Your task to perform on an android device: Search for jbl charge 4 on target.com, select the first entry, and add it to the cart. Image 0: 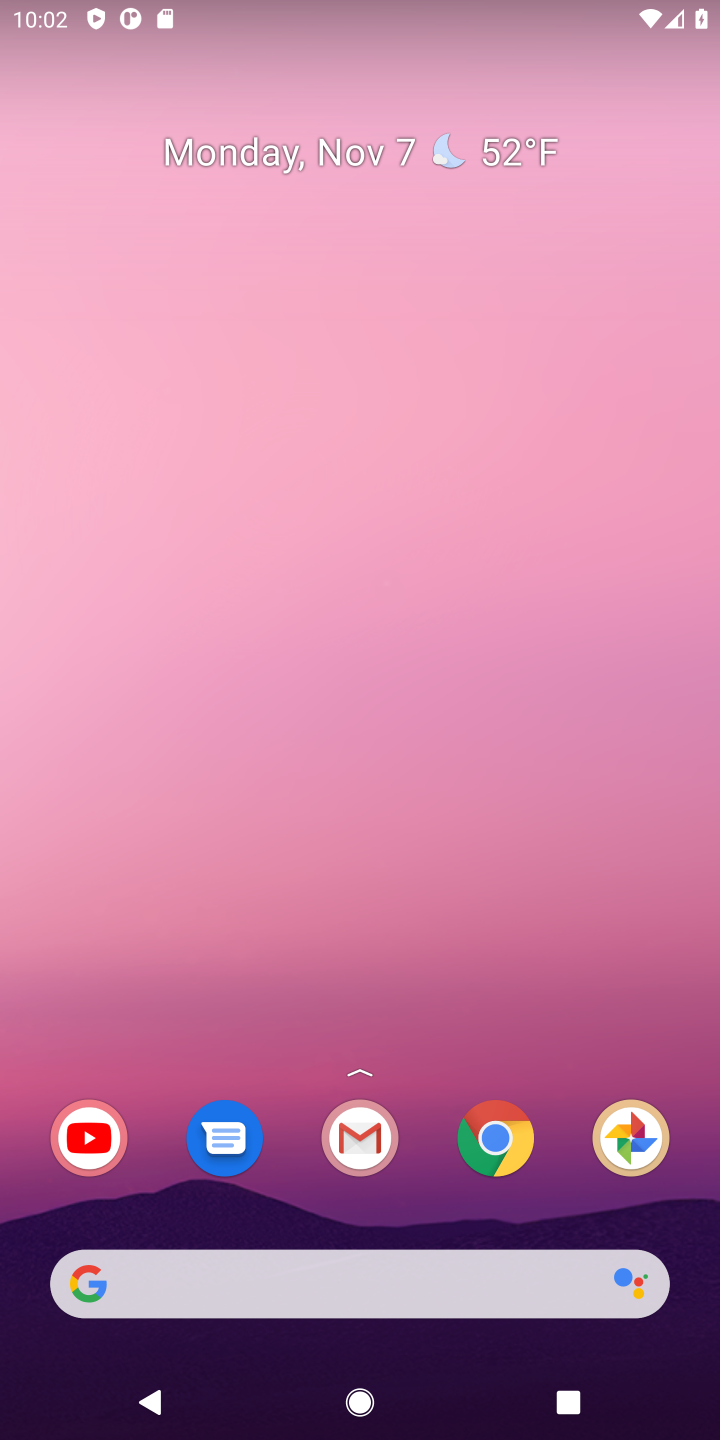
Step 0: drag from (363, 922) to (418, 221)
Your task to perform on an android device: Search for jbl charge 4 on target.com, select the first entry, and add it to the cart. Image 1: 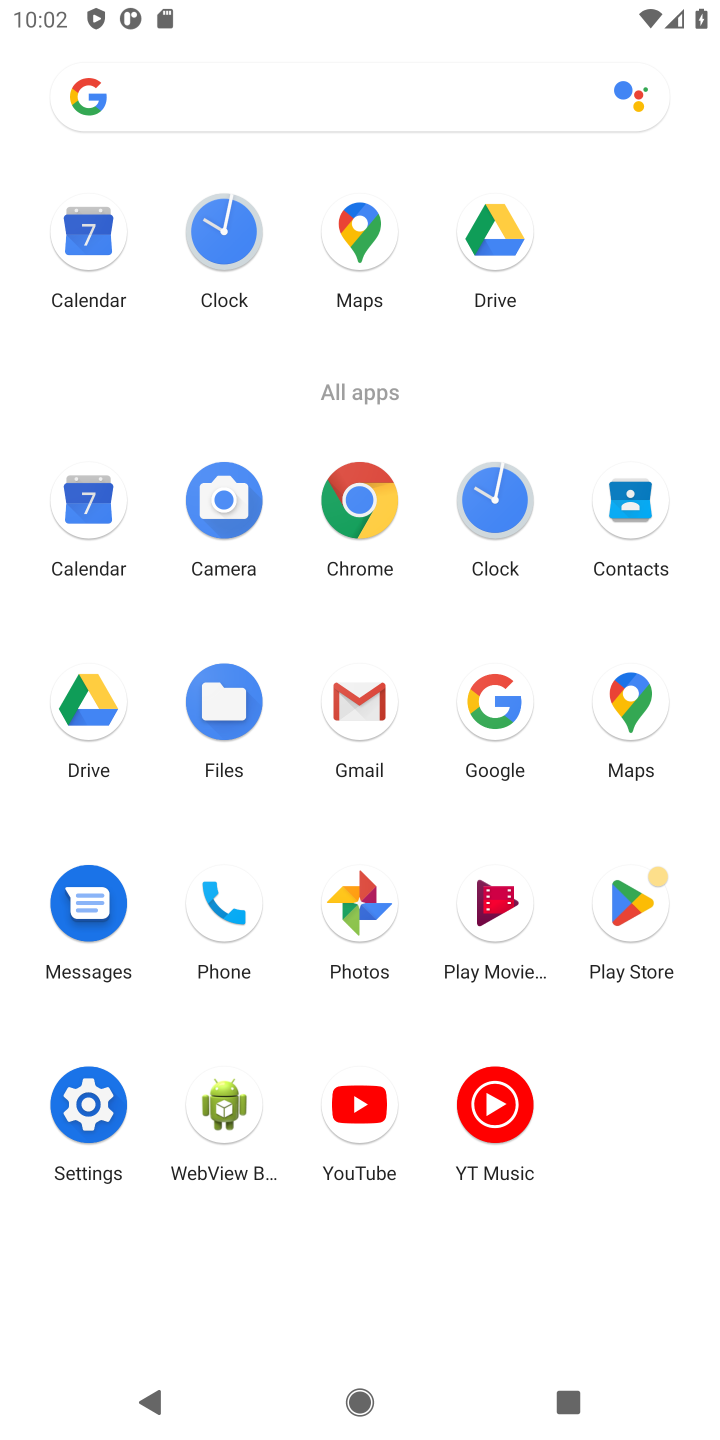
Step 1: click (468, 745)
Your task to perform on an android device: Search for jbl charge 4 on target.com, select the first entry, and add it to the cart. Image 2: 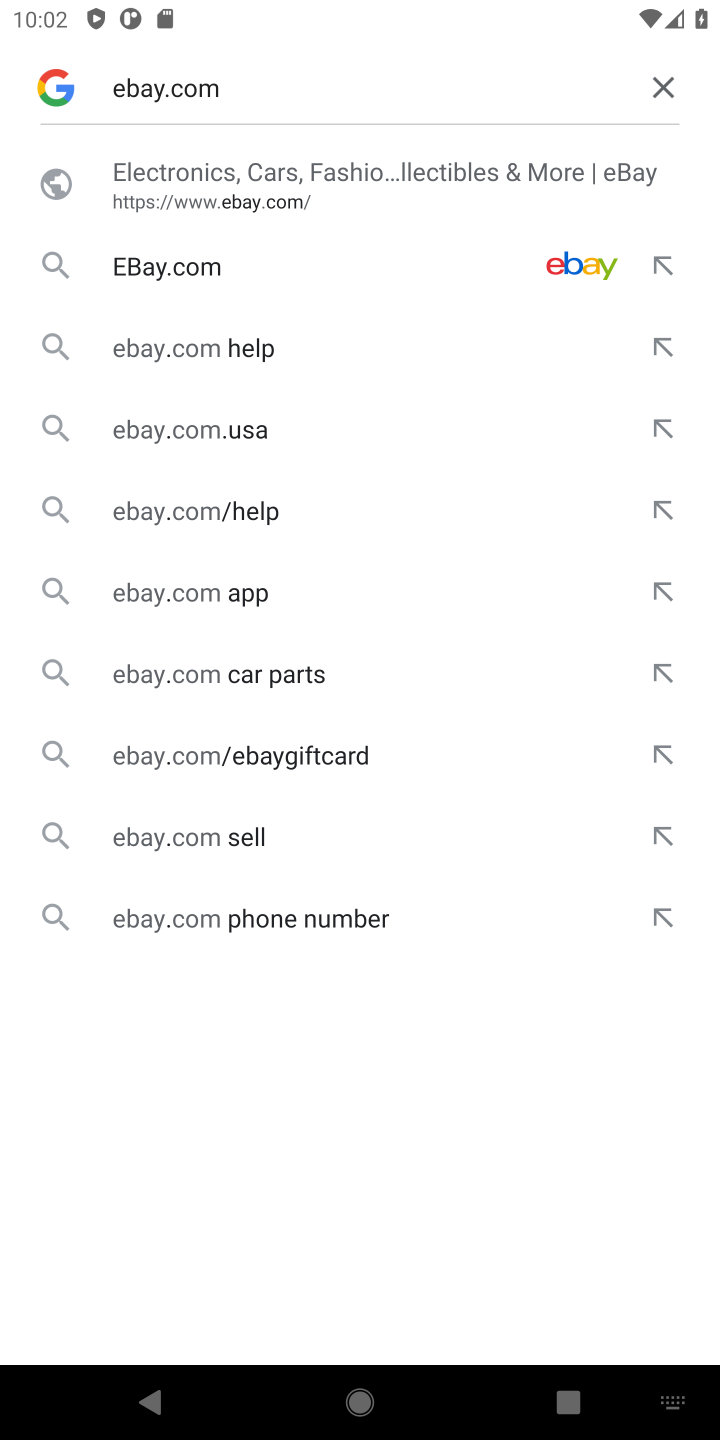
Step 2: click (652, 96)
Your task to perform on an android device: Search for jbl charge 4 on target.com, select the first entry, and add it to the cart. Image 3: 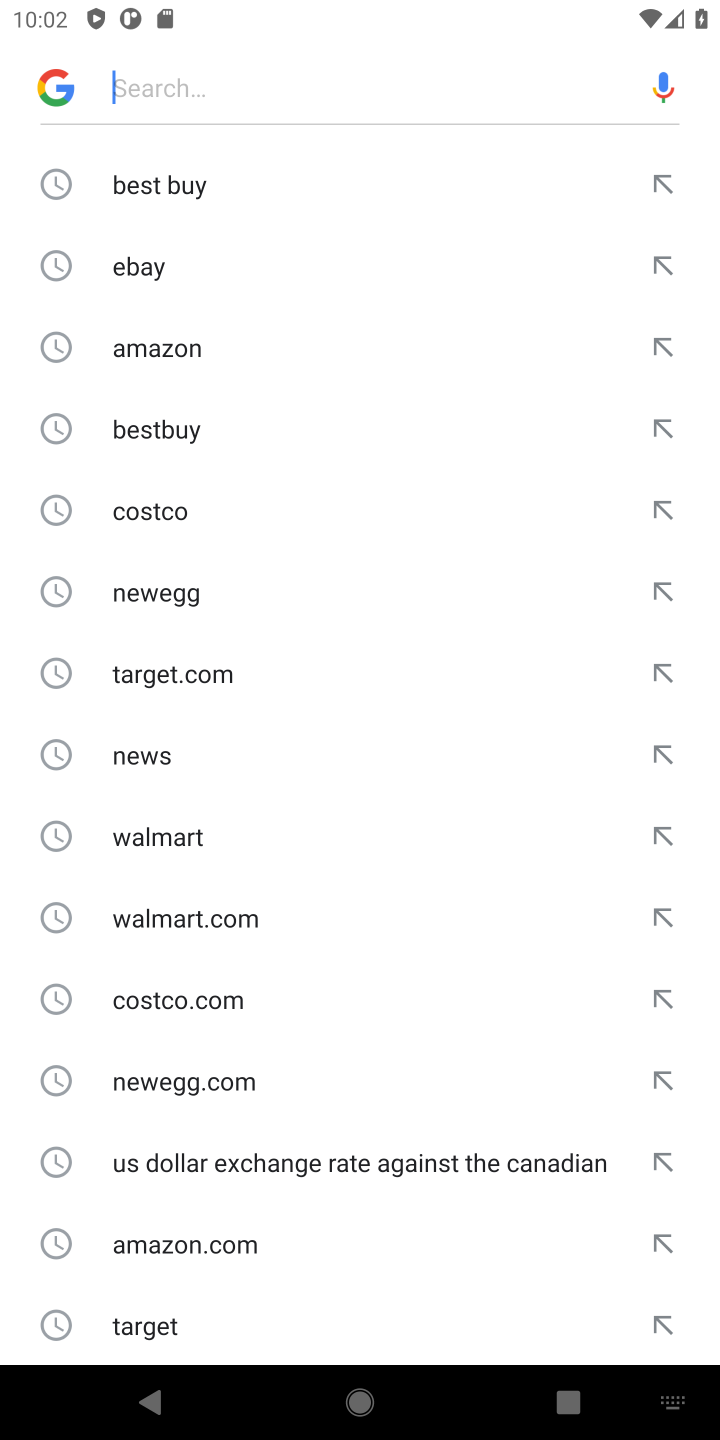
Step 3: click (232, 684)
Your task to perform on an android device: Search for jbl charge 4 on target.com, select the first entry, and add it to the cart. Image 4: 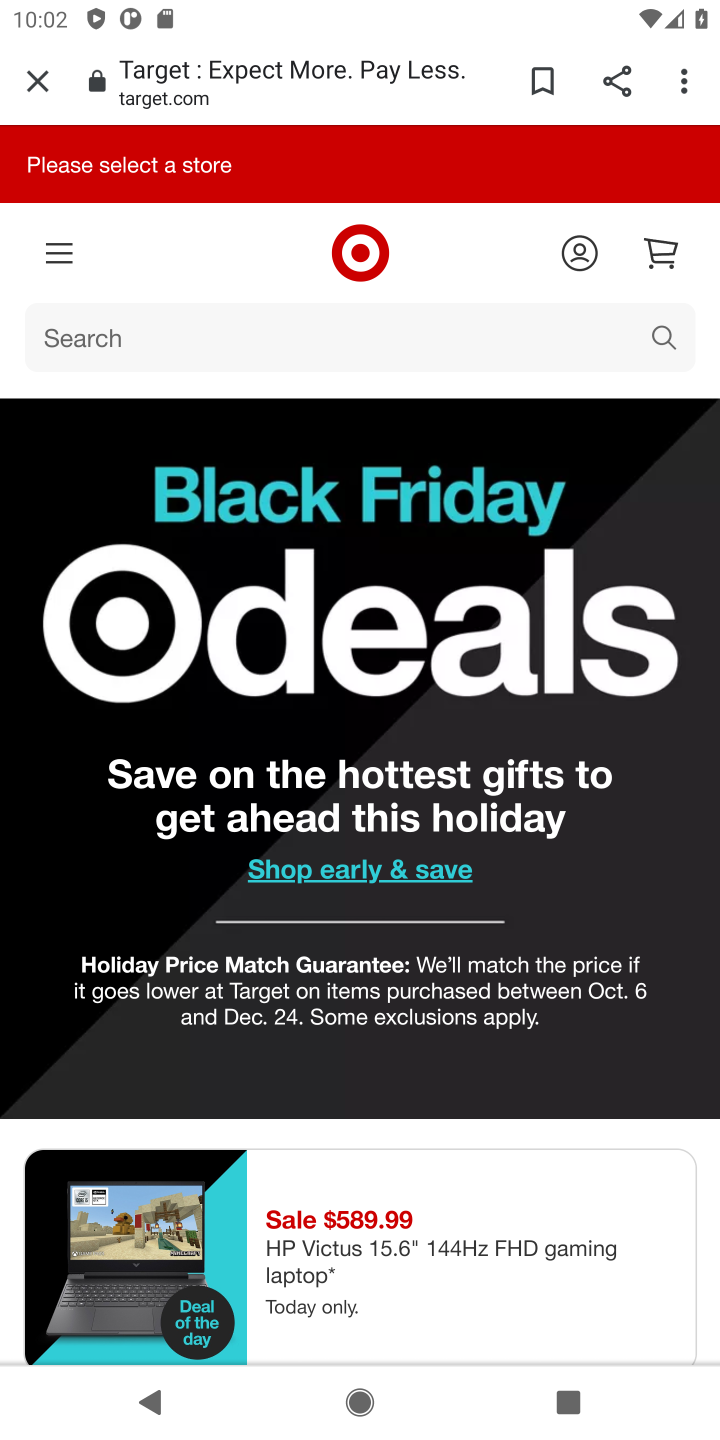
Step 4: click (292, 341)
Your task to perform on an android device: Search for jbl charge 4 on target.com, select the first entry, and add it to the cart. Image 5: 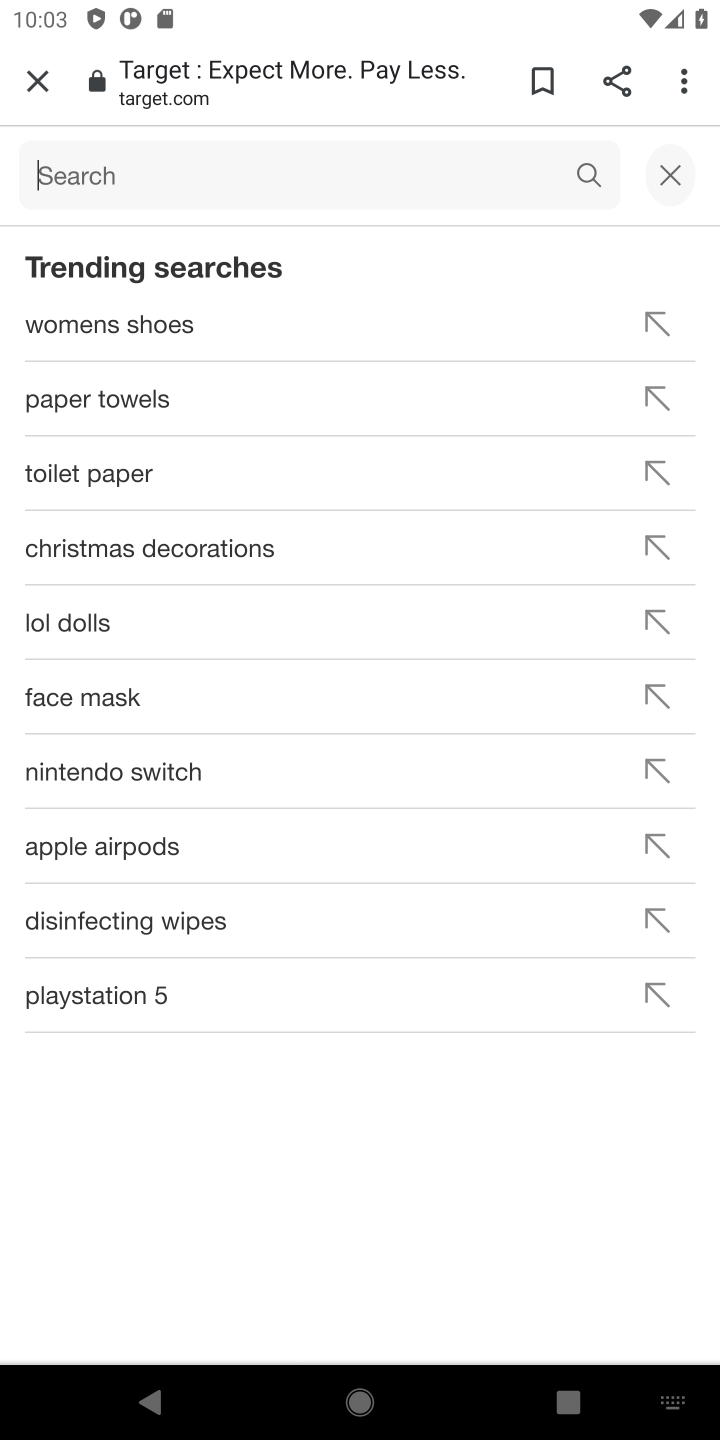
Step 5: type "jbl charge 4"
Your task to perform on an android device: Search for jbl charge 4 on target.com, select the first entry, and add it to the cart. Image 6: 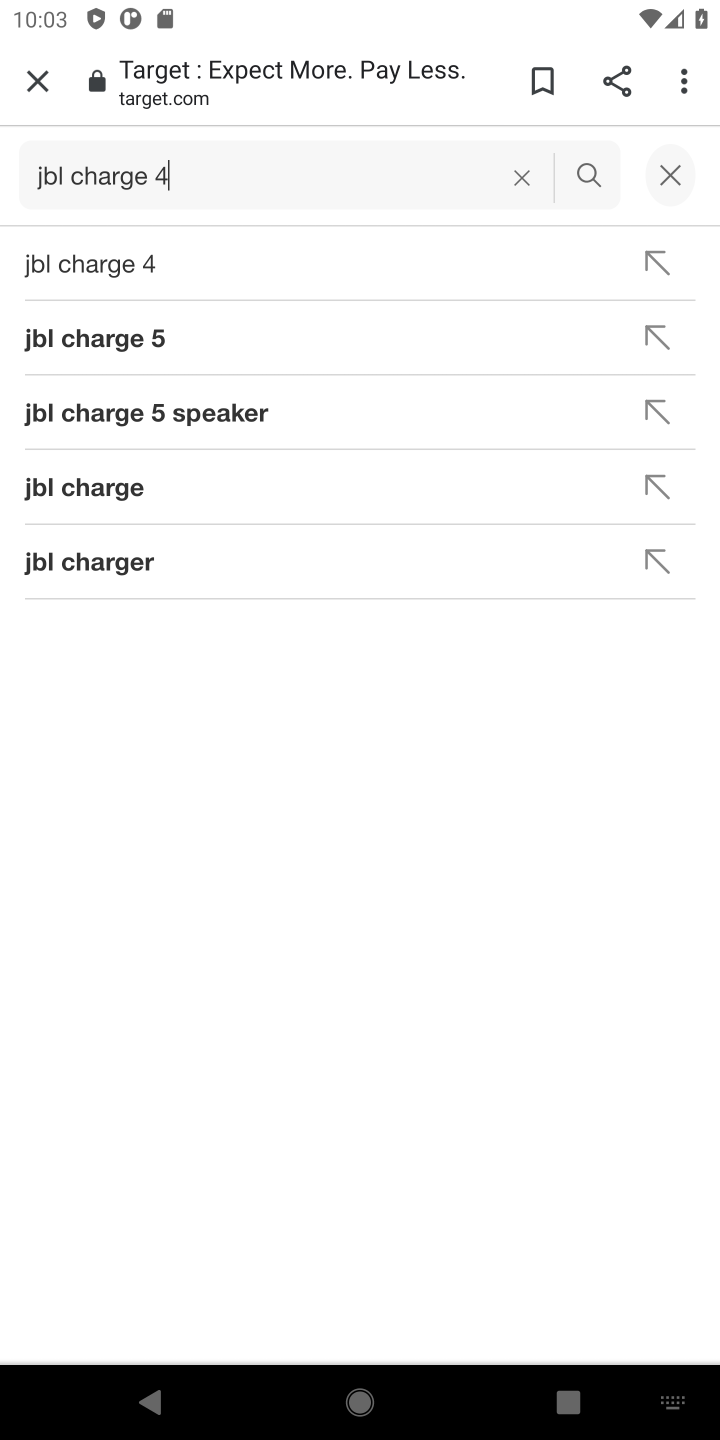
Step 6: click (391, 269)
Your task to perform on an android device: Search for jbl charge 4 on target.com, select the first entry, and add it to the cart. Image 7: 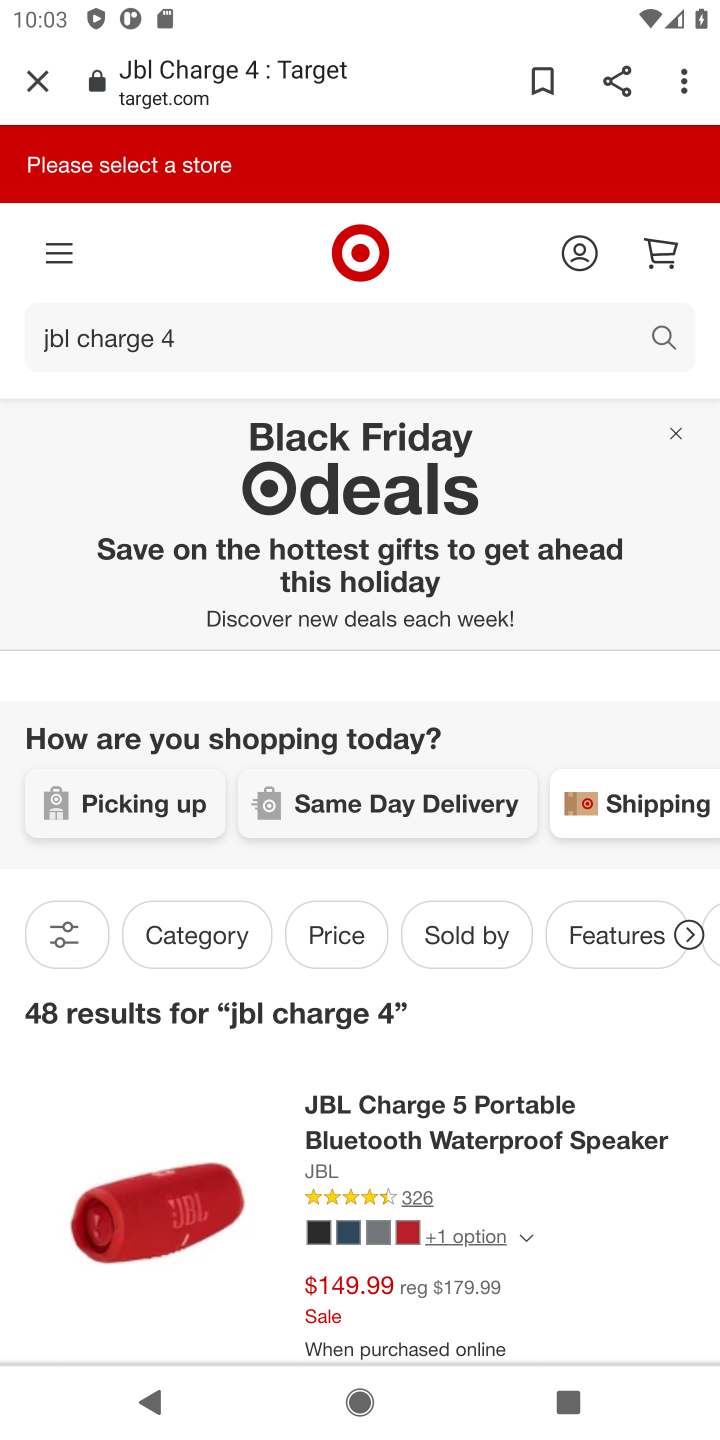
Step 7: task complete